Your task to perform on an android device: empty trash in the gmail app Image 0: 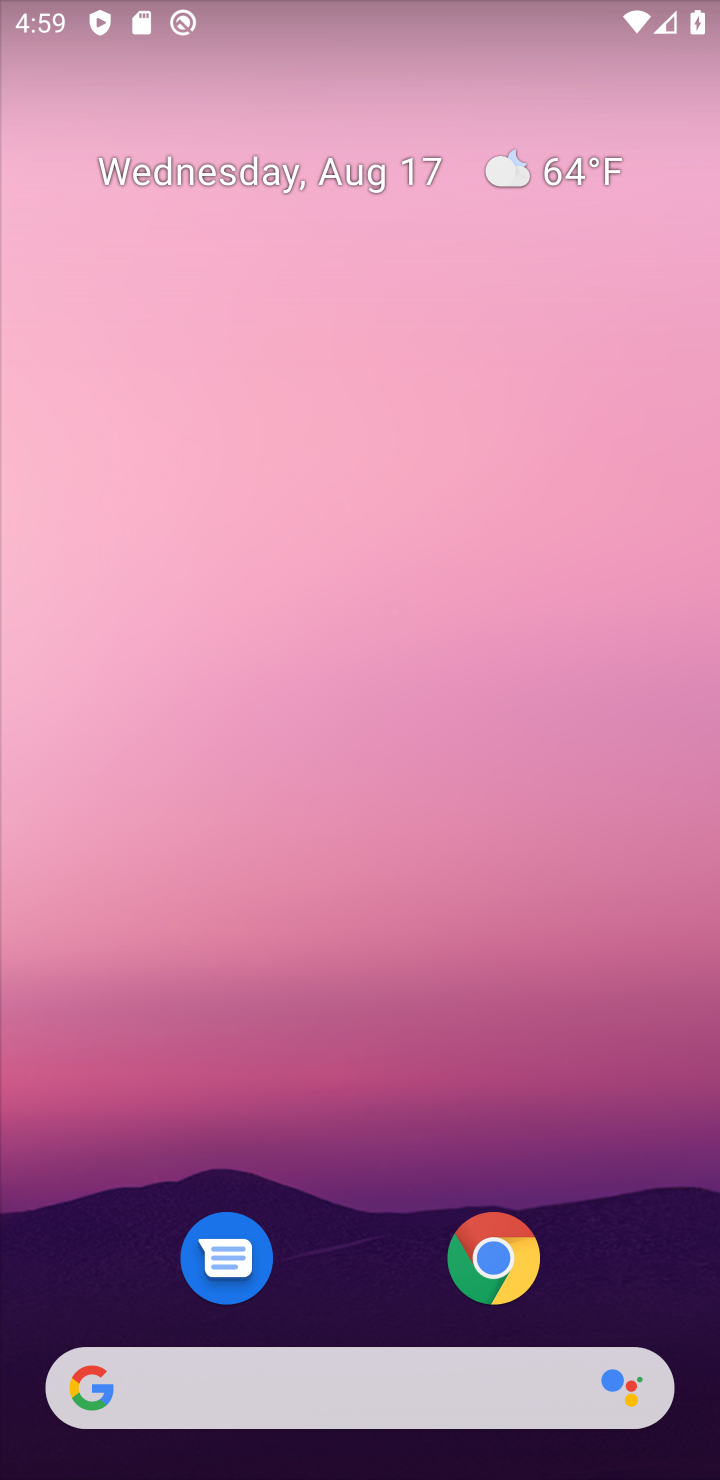
Step 0: drag from (403, 944) to (476, 177)
Your task to perform on an android device: empty trash in the gmail app Image 1: 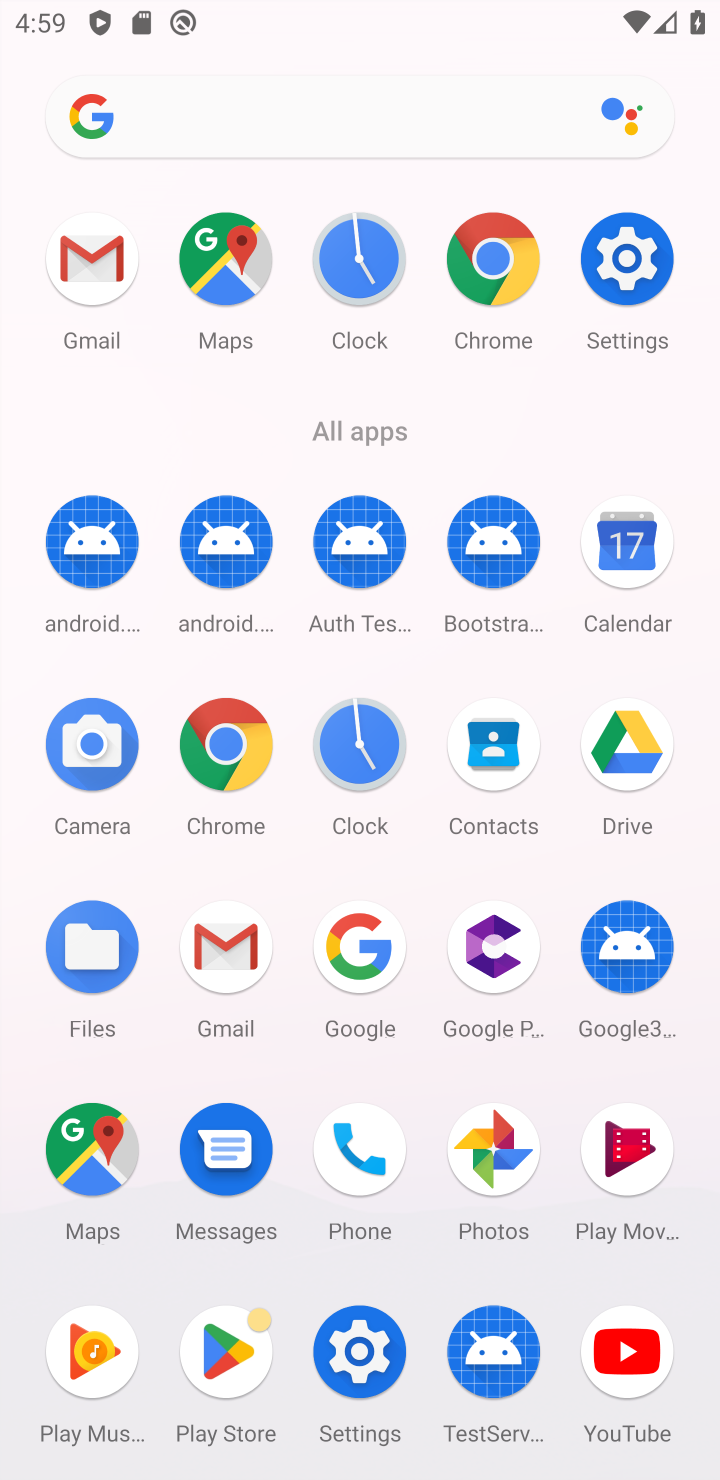
Step 1: click (242, 932)
Your task to perform on an android device: empty trash in the gmail app Image 2: 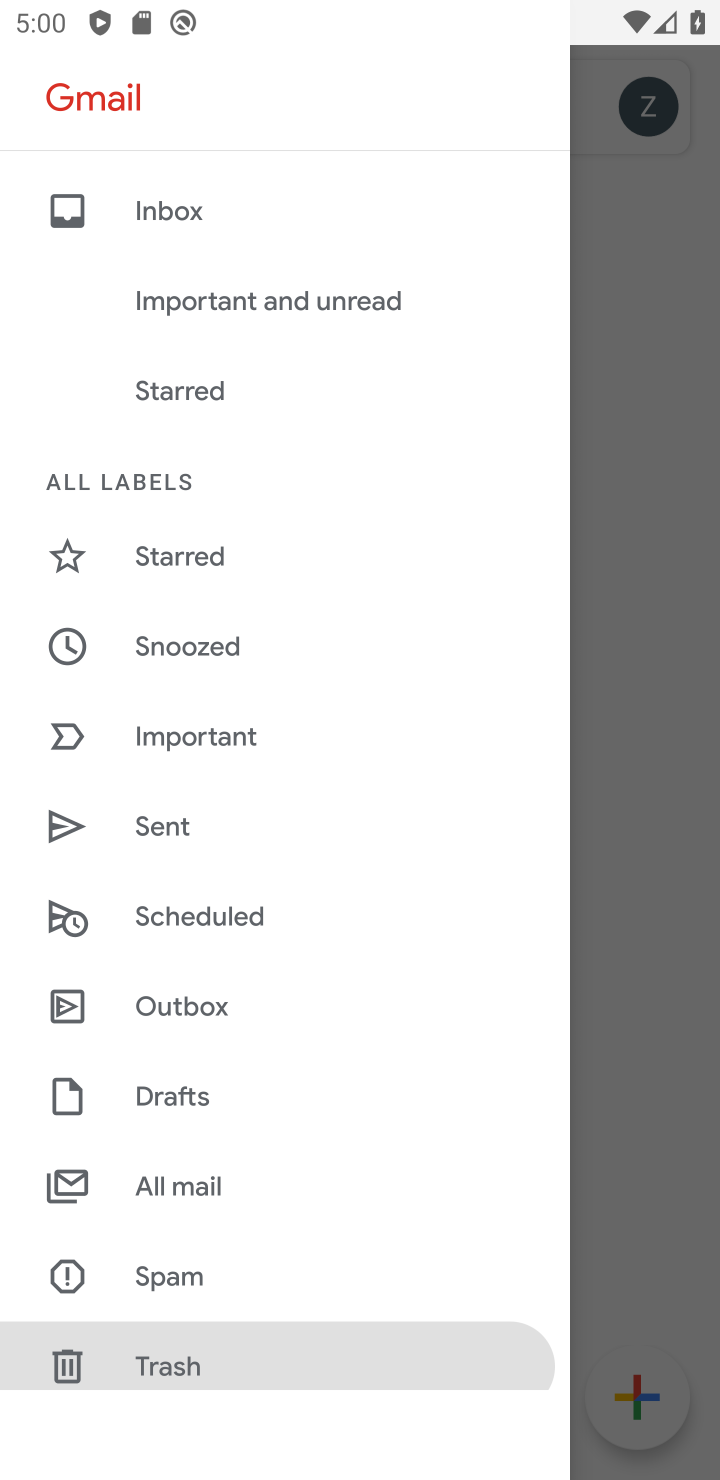
Step 2: click (179, 1355)
Your task to perform on an android device: empty trash in the gmail app Image 3: 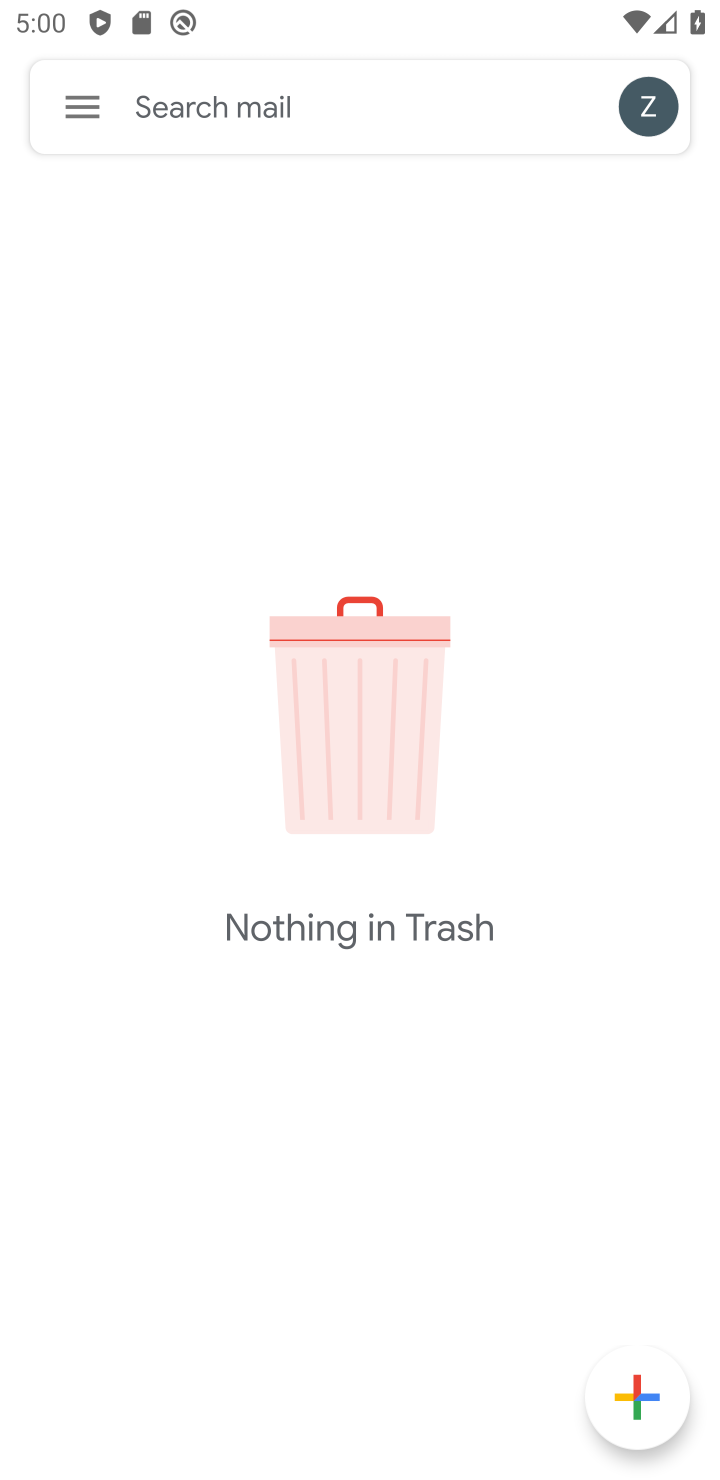
Step 3: task complete